Your task to perform on an android device: stop showing notifications on the lock screen Image 0: 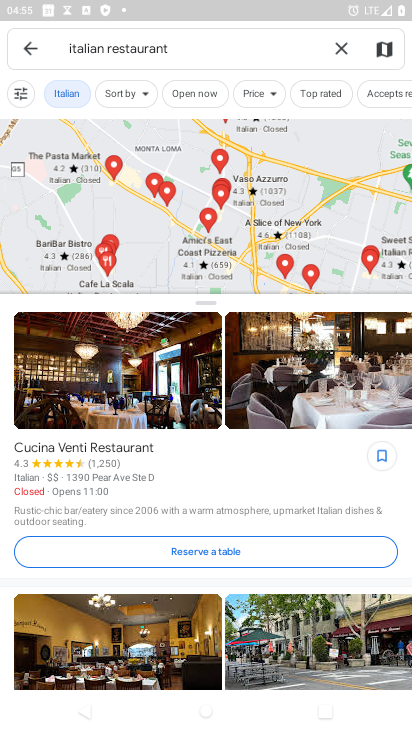
Step 0: press home button
Your task to perform on an android device: stop showing notifications on the lock screen Image 1: 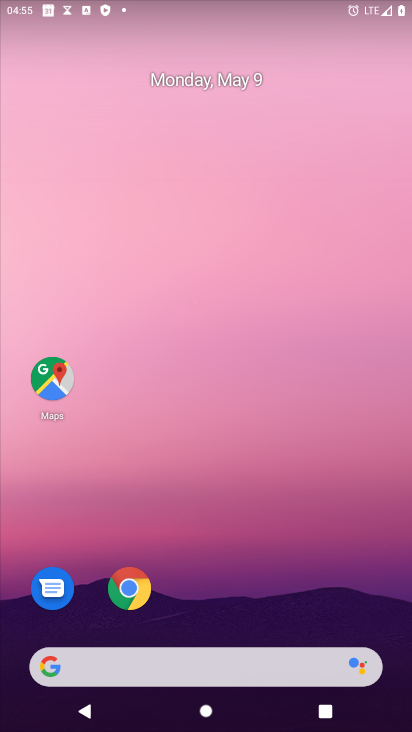
Step 1: drag from (247, 154) to (241, 1)
Your task to perform on an android device: stop showing notifications on the lock screen Image 2: 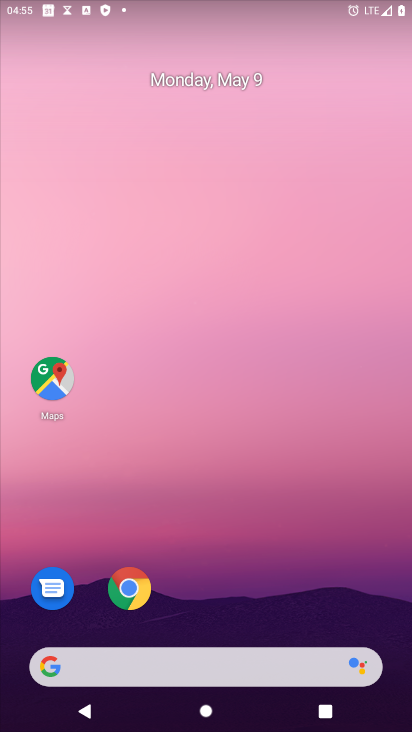
Step 2: drag from (273, 363) to (233, 60)
Your task to perform on an android device: stop showing notifications on the lock screen Image 3: 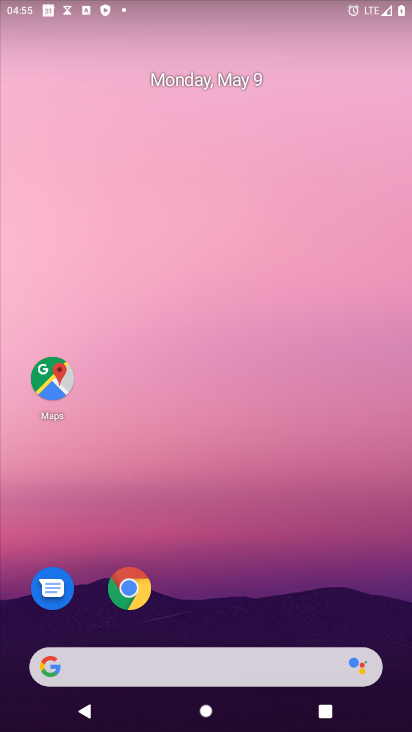
Step 3: drag from (228, 595) to (178, 18)
Your task to perform on an android device: stop showing notifications on the lock screen Image 4: 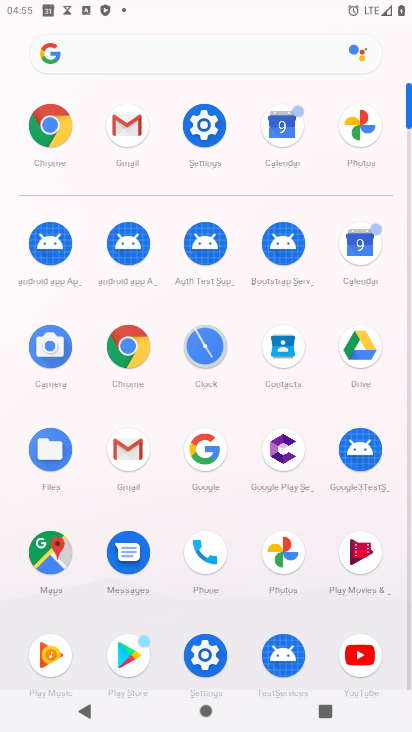
Step 4: click (212, 128)
Your task to perform on an android device: stop showing notifications on the lock screen Image 5: 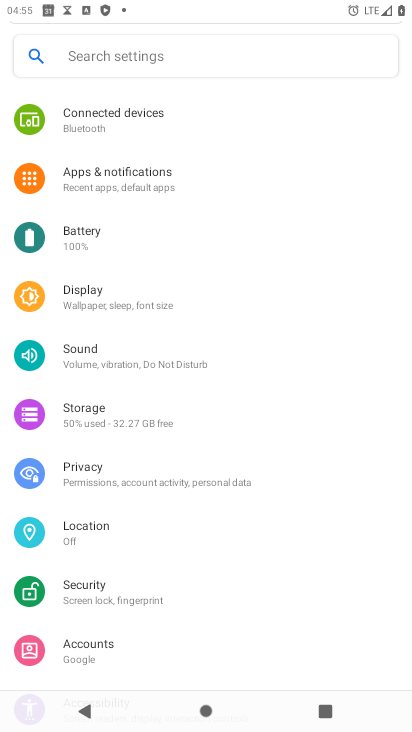
Step 5: click (152, 184)
Your task to perform on an android device: stop showing notifications on the lock screen Image 6: 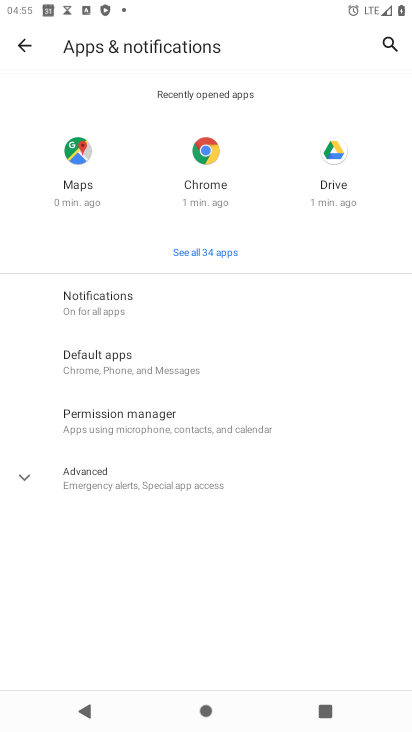
Step 6: click (199, 297)
Your task to perform on an android device: stop showing notifications on the lock screen Image 7: 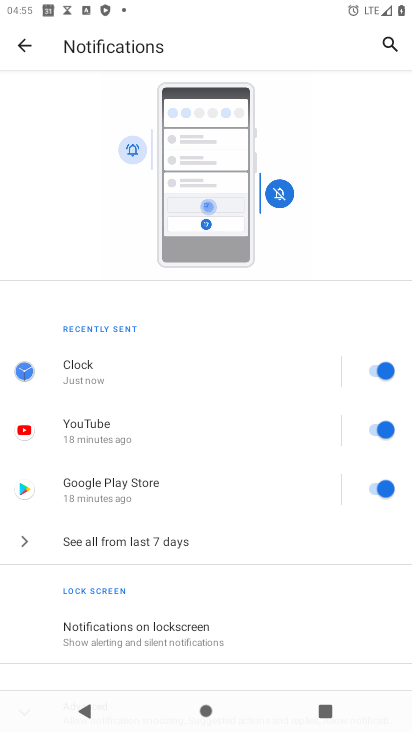
Step 7: click (216, 624)
Your task to perform on an android device: stop showing notifications on the lock screen Image 8: 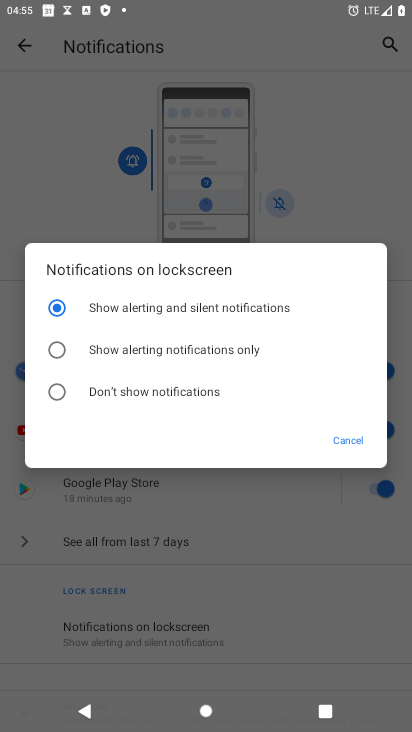
Step 8: click (153, 396)
Your task to perform on an android device: stop showing notifications on the lock screen Image 9: 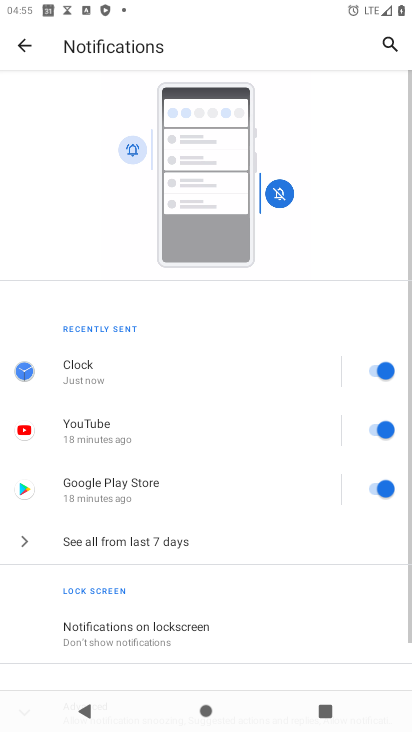
Step 9: task complete